Your task to perform on an android device: Open the phone app and click the voicemail tab. Image 0: 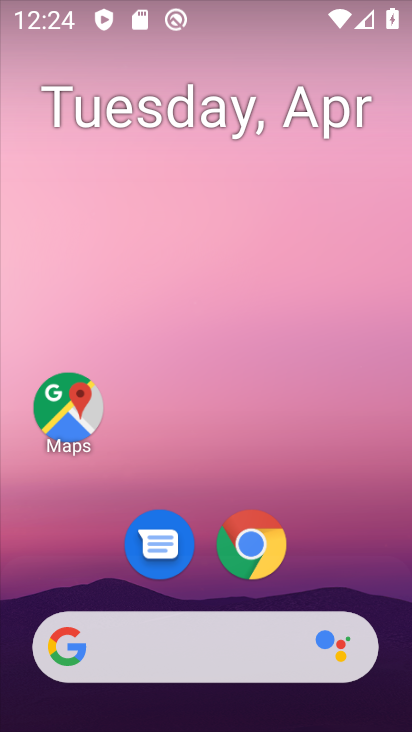
Step 0: click (266, 225)
Your task to perform on an android device: Open the phone app and click the voicemail tab. Image 1: 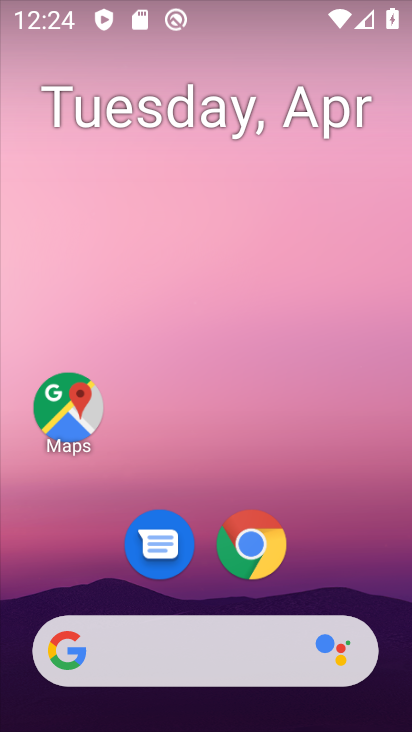
Step 1: drag from (178, 596) to (238, 122)
Your task to perform on an android device: Open the phone app and click the voicemail tab. Image 2: 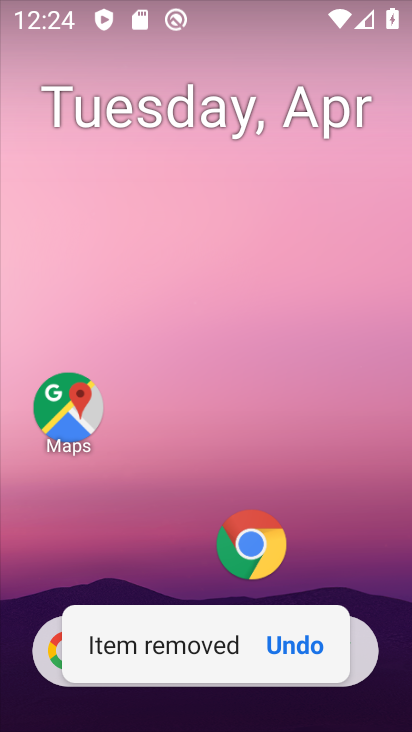
Step 2: click (329, 581)
Your task to perform on an android device: Open the phone app and click the voicemail tab. Image 3: 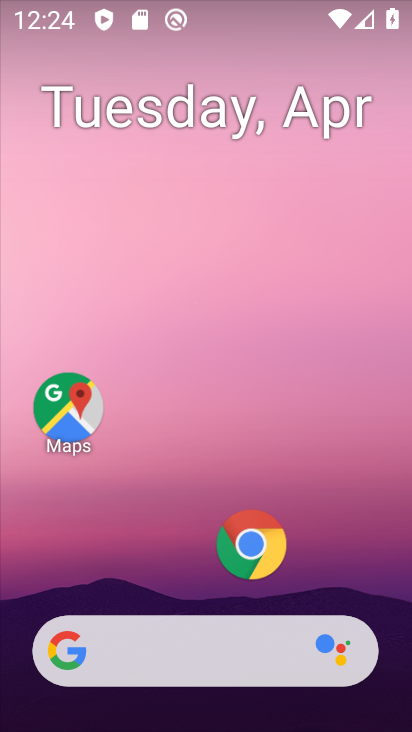
Step 3: drag from (319, 545) to (319, 148)
Your task to perform on an android device: Open the phone app and click the voicemail tab. Image 4: 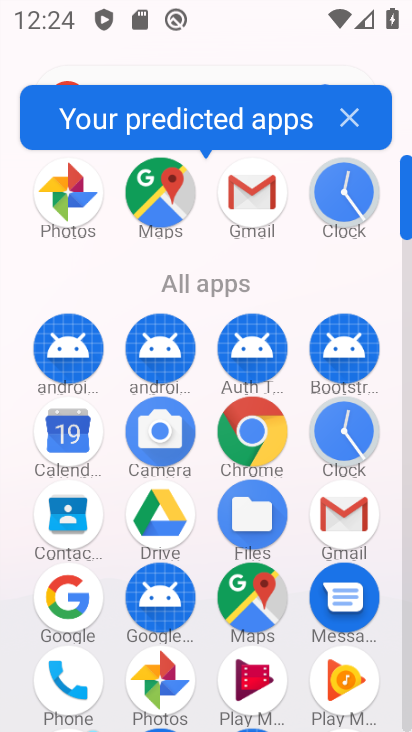
Step 4: click (56, 670)
Your task to perform on an android device: Open the phone app and click the voicemail tab. Image 5: 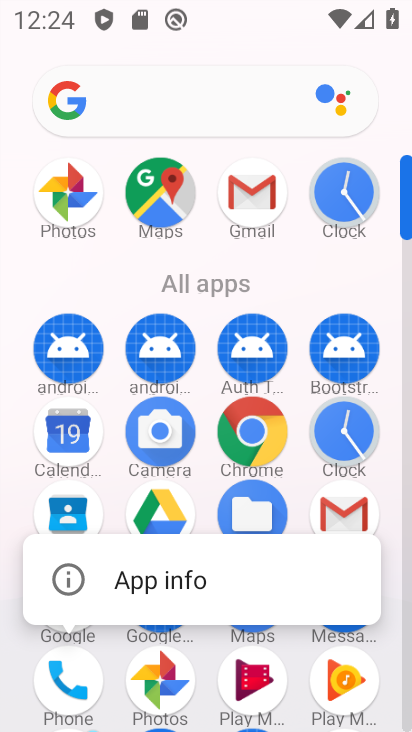
Step 5: click (56, 668)
Your task to perform on an android device: Open the phone app and click the voicemail tab. Image 6: 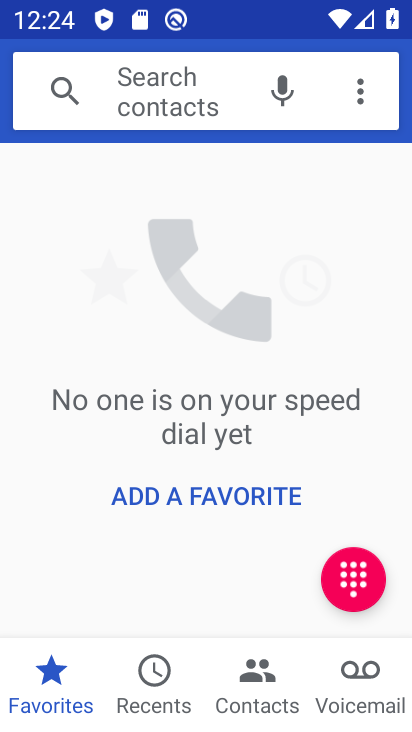
Step 6: click (342, 677)
Your task to perform on an android device: Open the phone app and click the voicemail tab. Image 7: 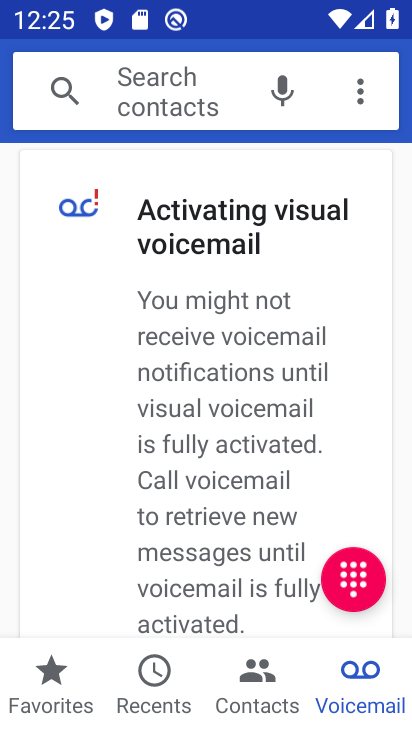
Step 7: task complete